Your task to perform on an android device: Clear the cart on amazon. Add "macbook air" to the cart on amazon, then select checkout. Image 0: 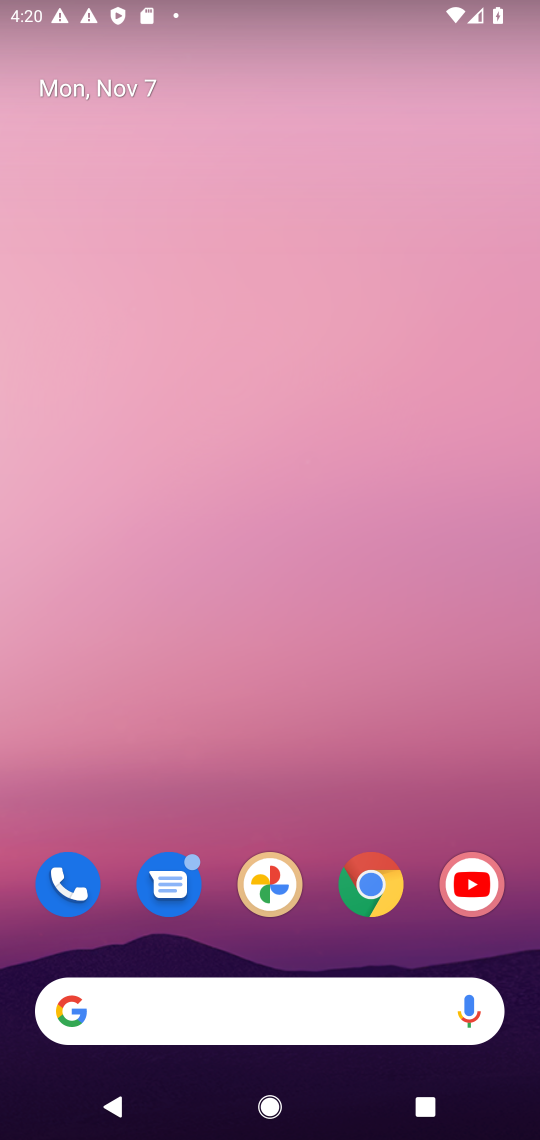
Step 0: drag from (315, 933) to (330, 137)
Your task to perform on an android device: Clear the cart on amazon. Add "macbook air" to the cart on amazon, then select checkout. Image 1: 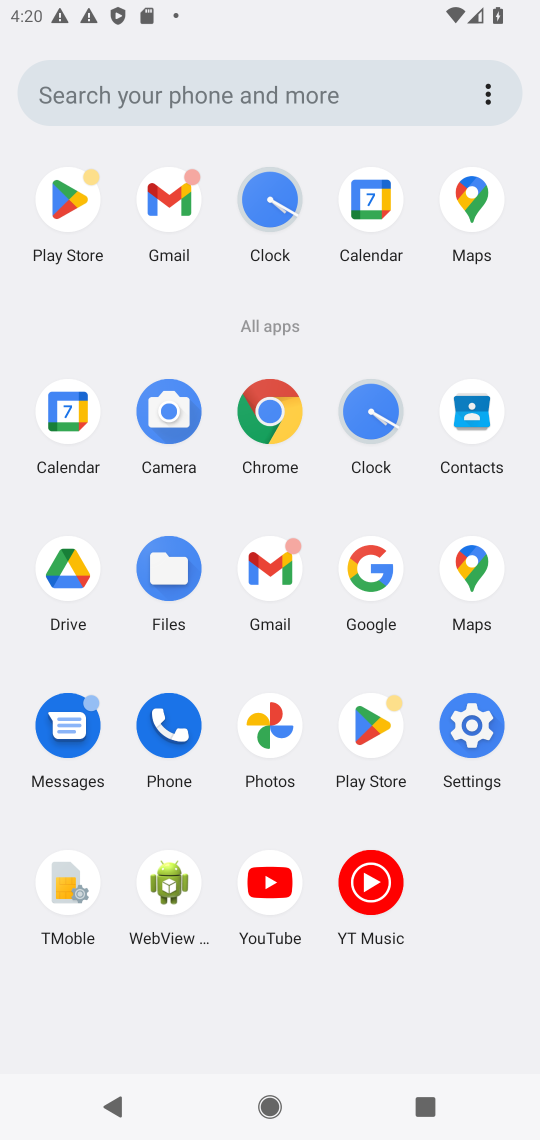
Step 1: click (274, 420)
Your task to perform on an android device: Clear the cart on amazon. Add "macbook air" to the cart on amazon, then select checkout. Image 2: 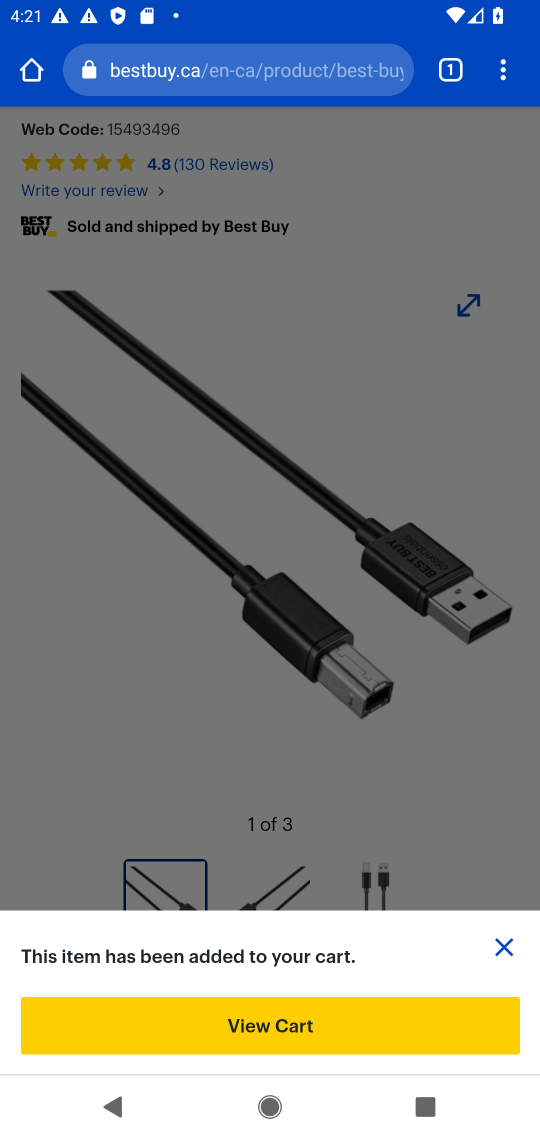
Step 2: click (231, 62)
Your task to perform on an android device: Clear the cart on amazon. Add "macbook air" to the cart on amazon, then select checkout. Image 3: 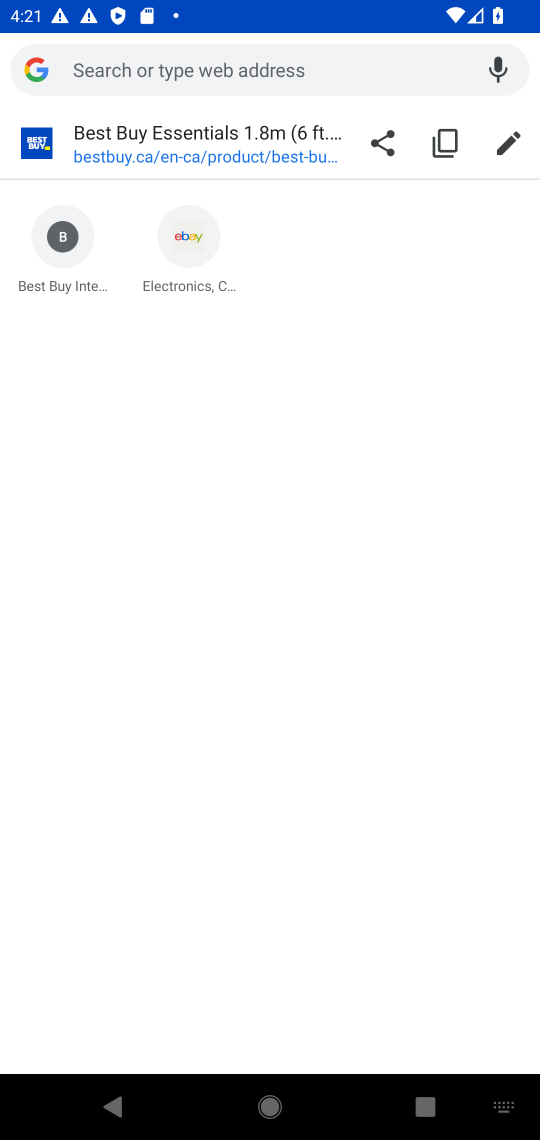
Step 3: type "amazon.com"
Your task to perform on an android device: Clear the cart on amazon. Add "macbook air" to the cart on amazon, then select checkout. Image 4: 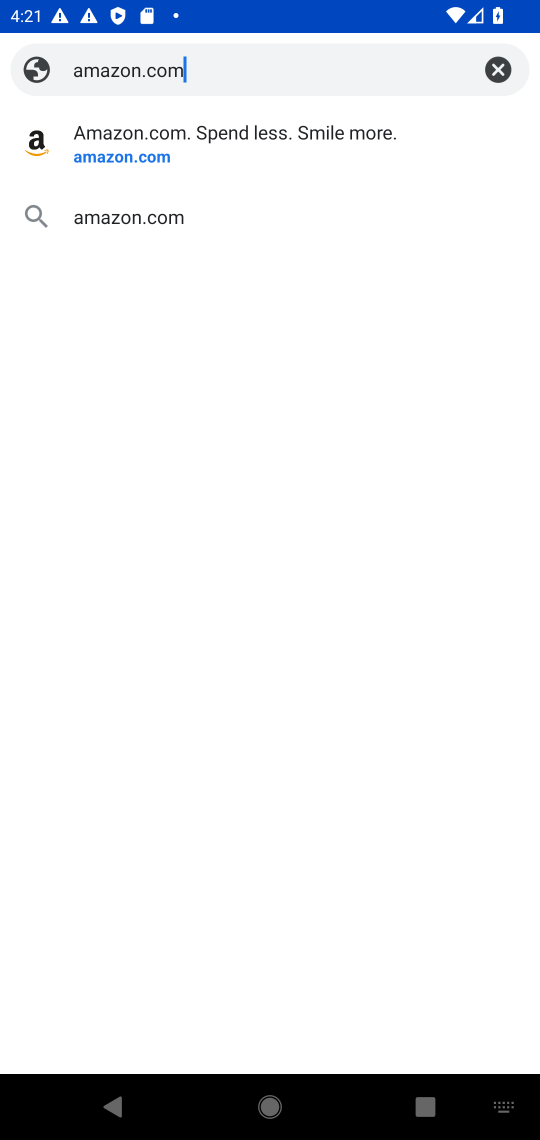
Step 4: press enter
Your task to perform on an android device: Clear the cart on amazon. Add "macbook air" to the cart on amazon, then select checkout. Image 5: 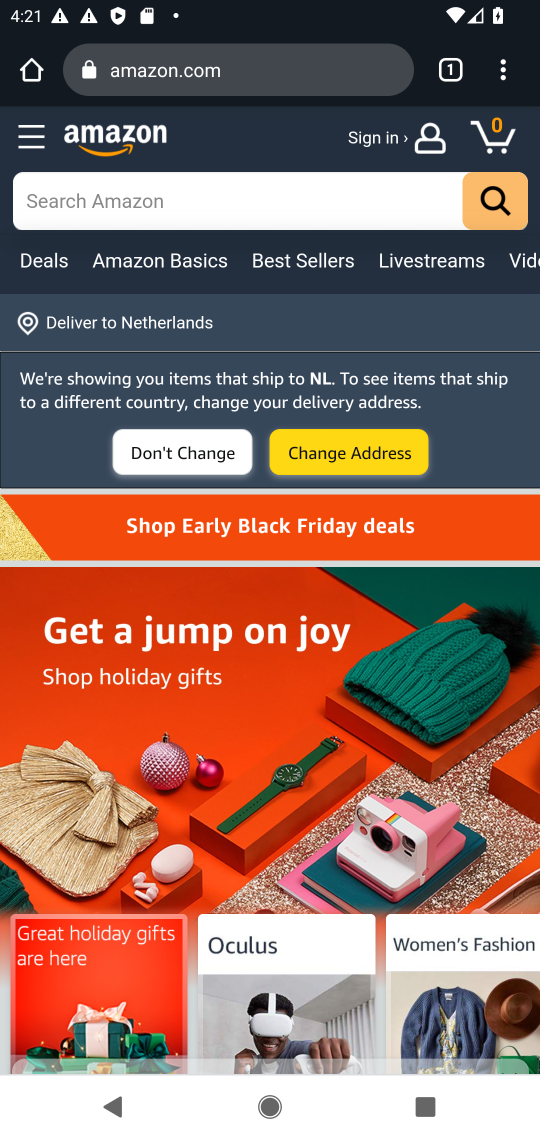
Step 5: click (499, 131)
Your task to perform on an android device: Clear the cart on amazon. Add "macbook air" to the cart on amazon, then select checkout. Image 6: 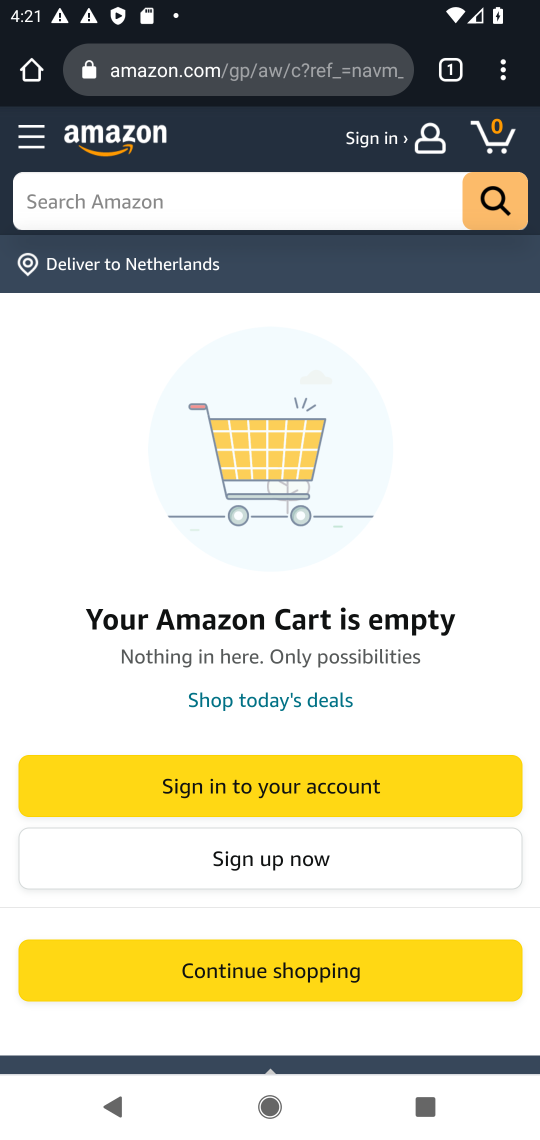
Step 6: click (243, 197)
Your task to perform on an android device: Clear the cart on amazon. Add "macbook air" to the cart on amazon, then select checkout. Image 7: 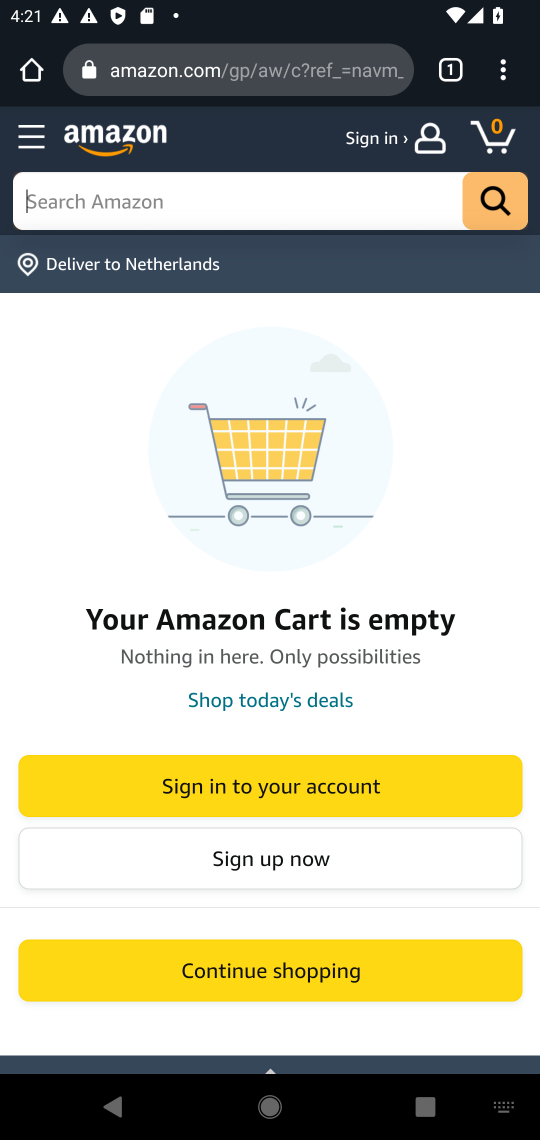
Step 7: type "macbook air"
Your task to perform on an android device: Clear the cart on amazon. Add "macbook air" to the cart on amazon, then select checkout. Image 8: 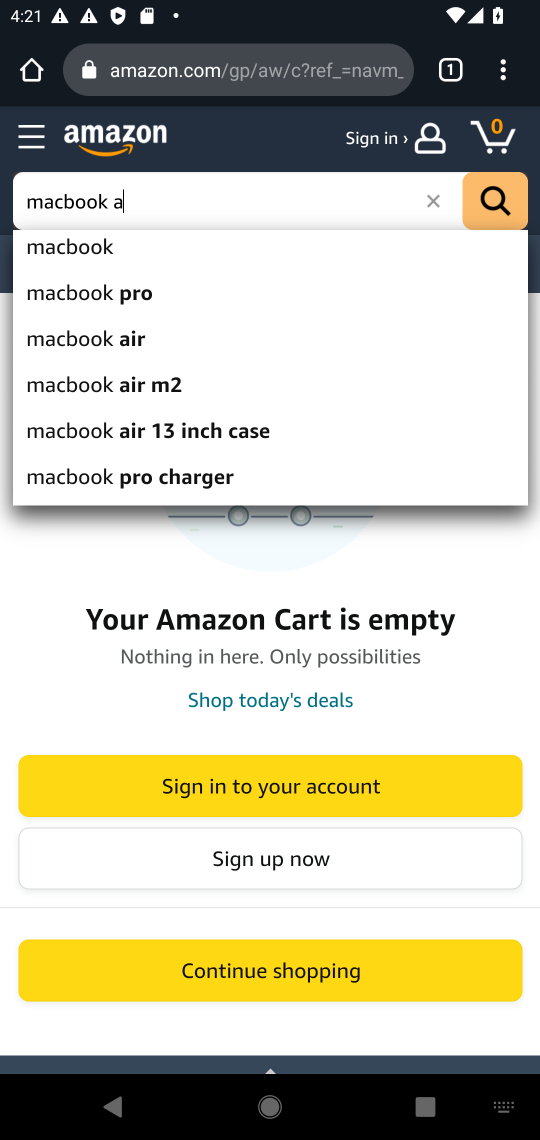
Step 8: press enter
Your task to perform on an android device: Clear the cart on amazon. Add "macbook air" to the cart on amazon, then select checkout. Image 9: 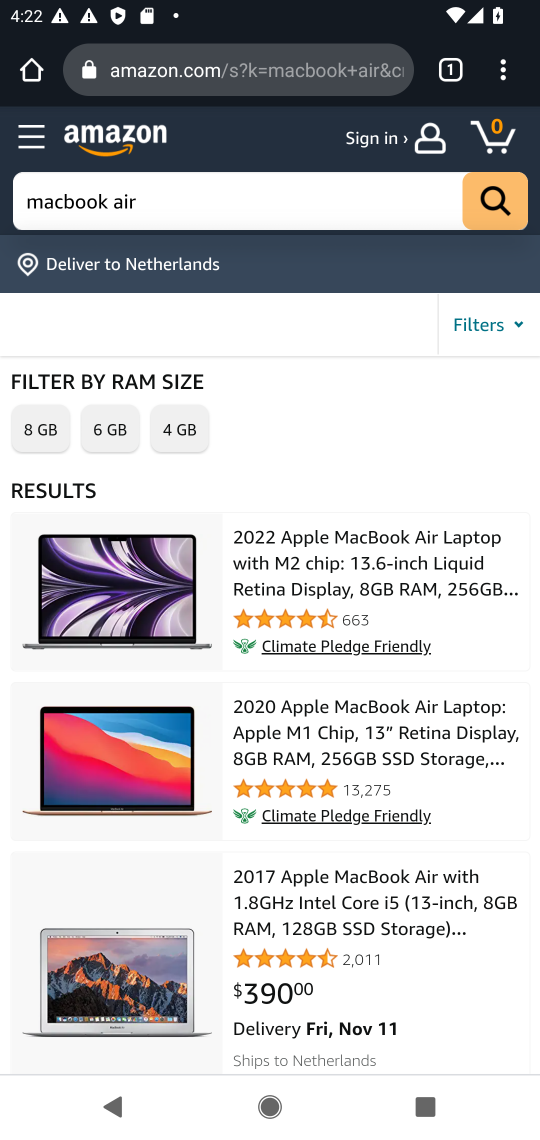
Step 9: click (295, 558)
Your task to perform on an android device: Clear the cart on amazon. Add "macbook air" to the cart on amazon, then select checkout. Image 10: 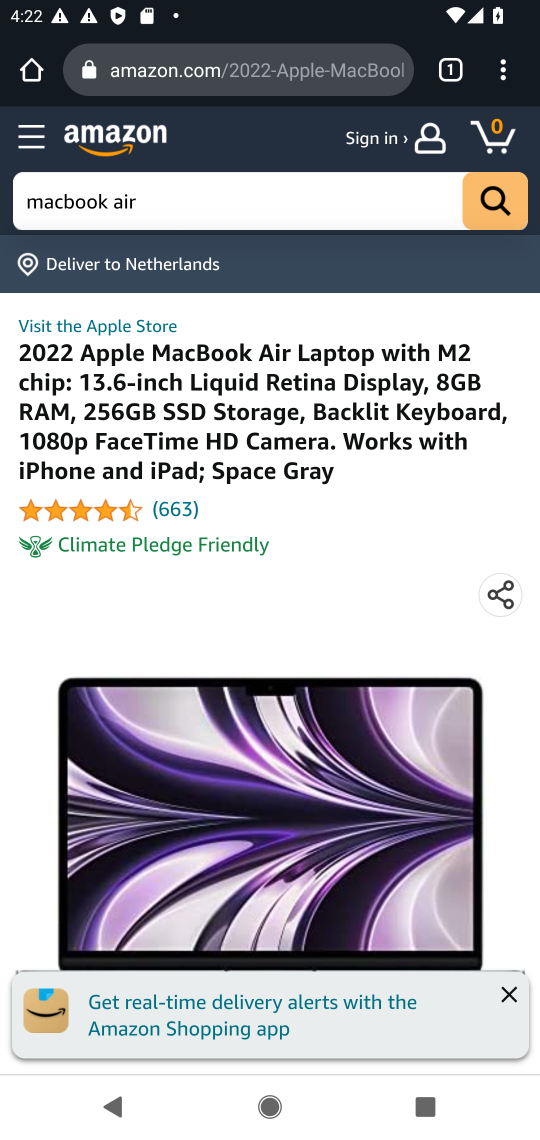
Step 10: task complete